Your task to perform on an android device: create a new album in the google photos Image 0: 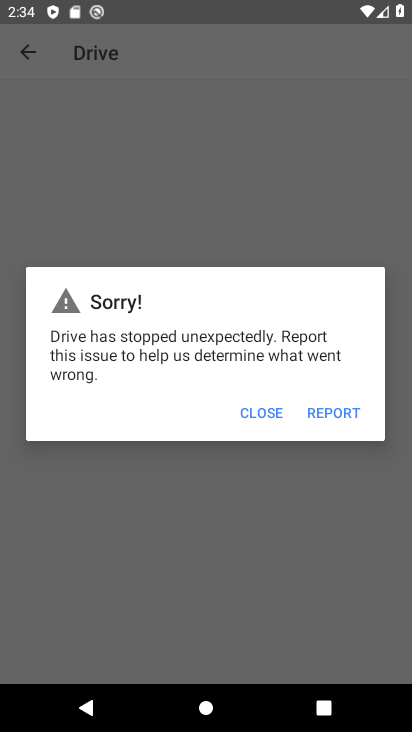
Step 0: press home button
Your task to perform on an android device: create a new album in the google photos Image 1: 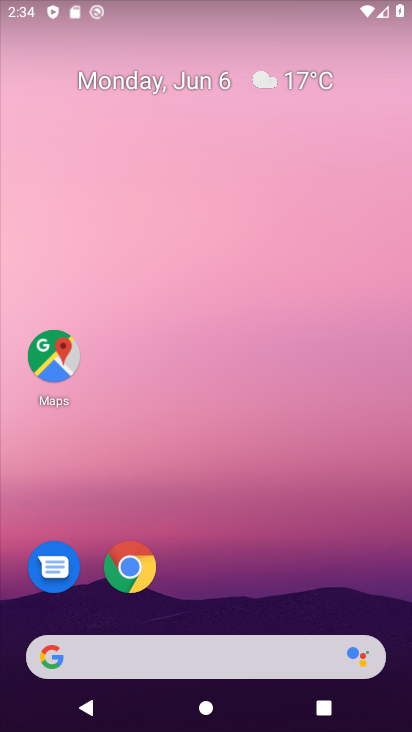
Step 1: drag from (210, 622) to (147, 32)
Your task to perform on an android device: create a new album in the google photos Image 2: 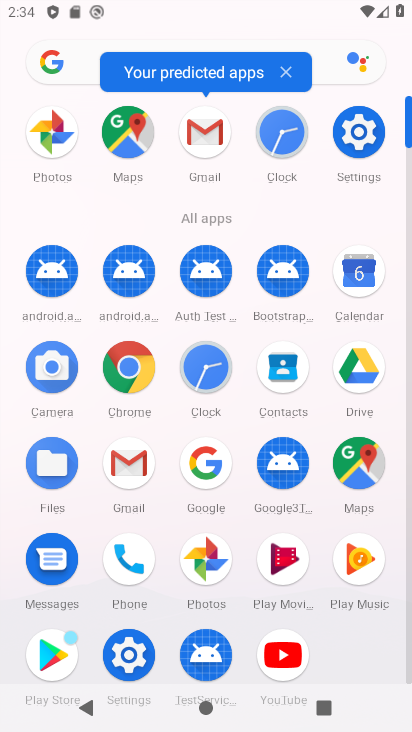
Step 2: click (200, 560)
Your task to perform on an android device: create a new album in the google photos Image 3: 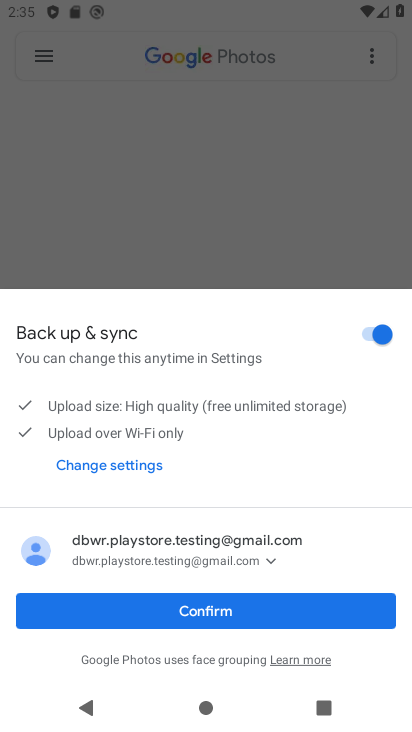
Step 3: click (179, 608)
Your task to perform on an android device: create a new album in the google photos Image 4: 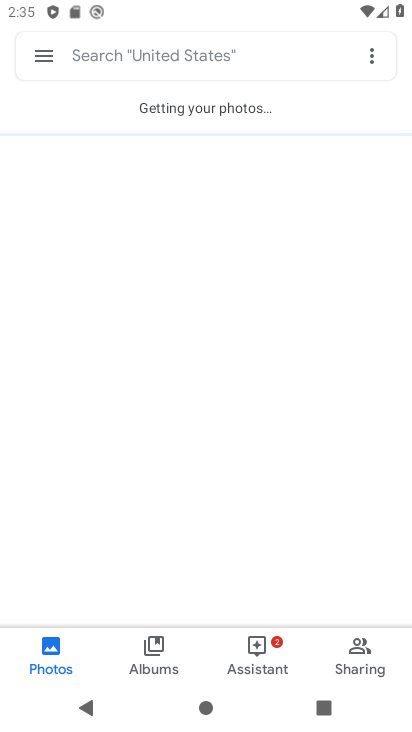
Step 4: click (165, 643)
Your task to perform on an android device: create a new album in the google photos Image 5: 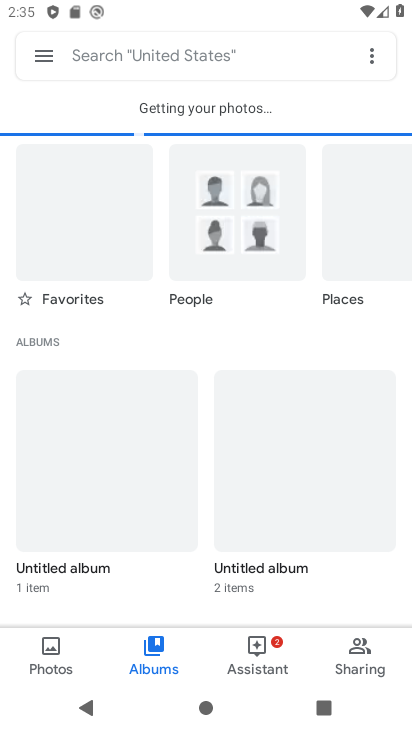
Step 5: click (65, 654)
Your task to perform on an android device: create a new album in the google photos Image 6: 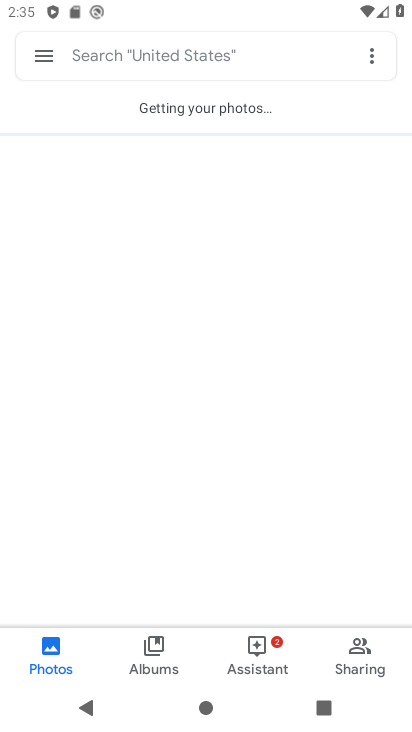
Step 6: task complete